Your task to perform on an android device: clear history in the chrome app Image 0: 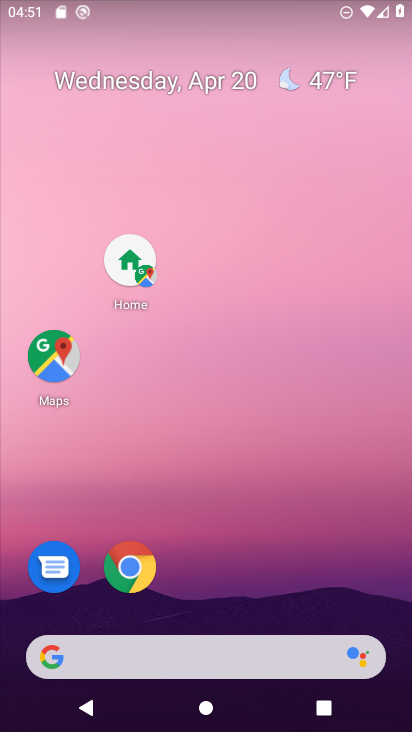
Step 0: click (129, 572)
Your task to perform on an android device: clear history in the chrome app Image 1: 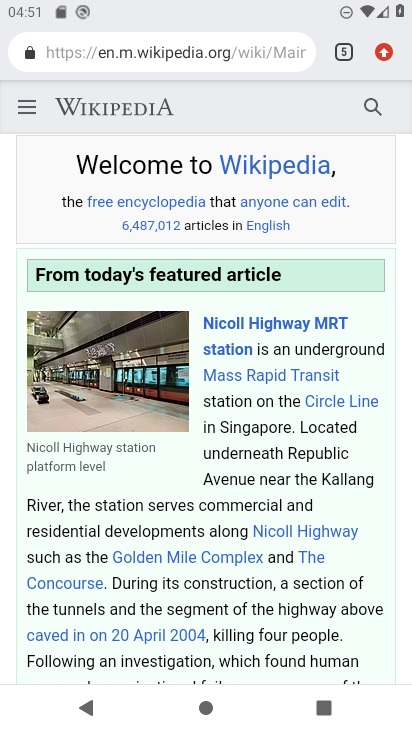
Step 1: click (384, 48)
Your task to perform on an android device: clear history in the chrome app Image 2: 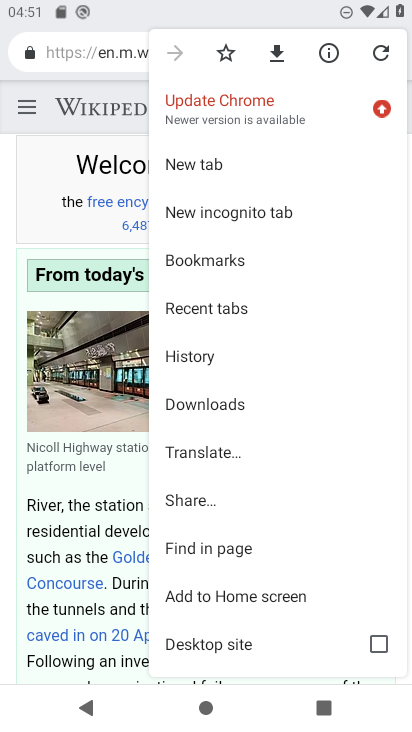
Step 2: drag from (186, 628) to (174, 67)
Your task to perform on an android device: clear history in the chrome app Image 3: 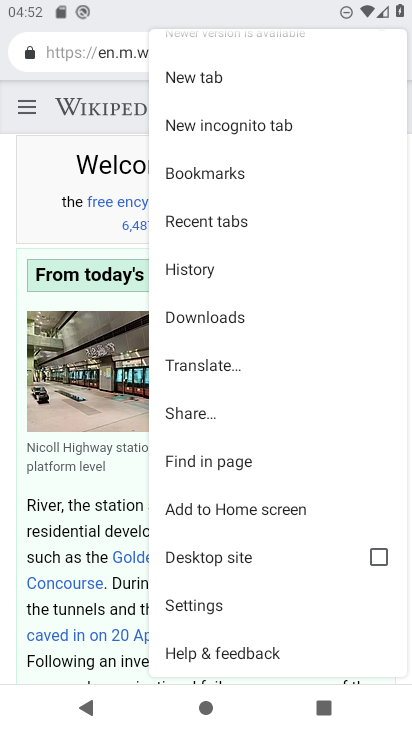
Step 3: click (250, 615)
Your task to perform on an android device: clear history in the chrome app Image 4: 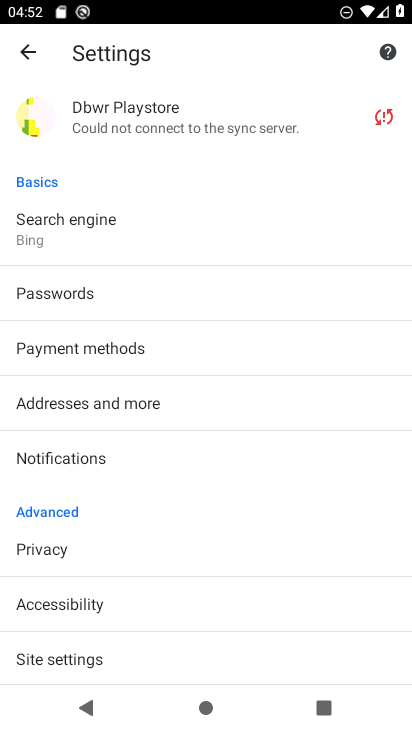
Step 4: drag from (143, 645) to (144, 201)
Your task to perform on an android device: clear history in the chrome app Image 5: 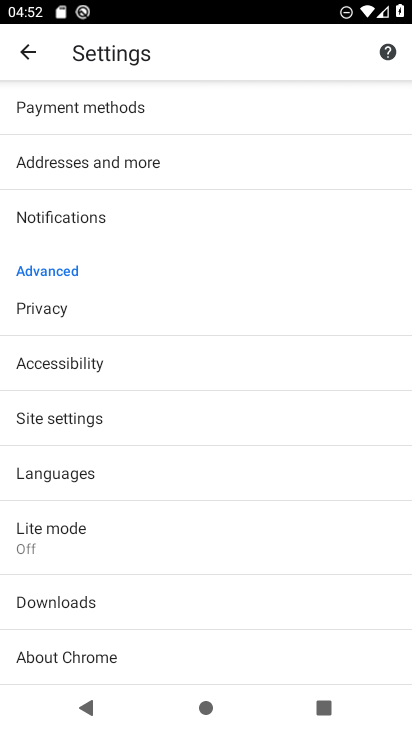
Step 5: drag from (190, 547) to (157, 187)
Your task to perform on an android device: clear history in the chrome app Image 6: 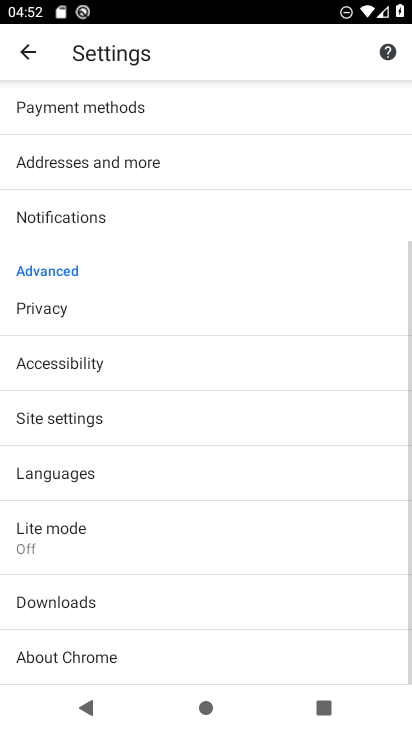
Step 6: drag from (161, 34) to (299, 522)
Your task to perform on an android device: clear history in the chrome app Image 7: 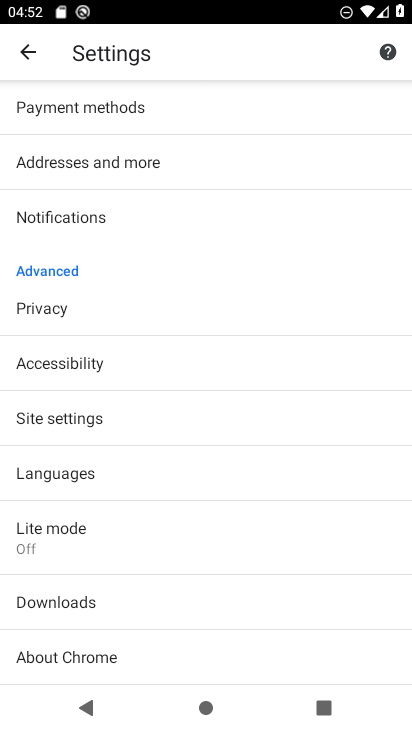
Step 7: drag from (179, 116) to (203, 469)
Your task to perform on an android device: clear history in the chrome app Image 8: 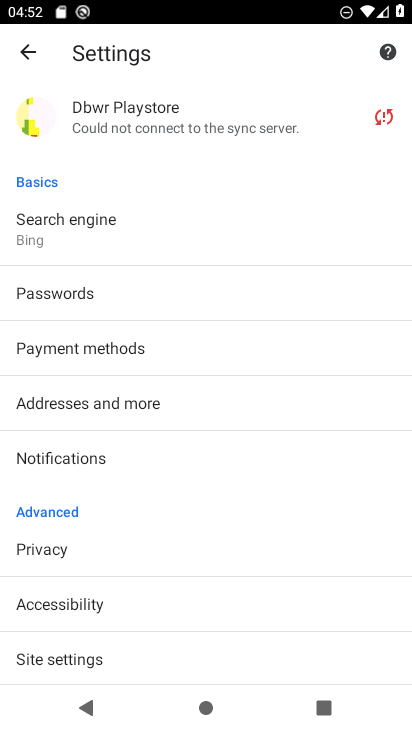
Step 8: click (20, 57)
Your task to perform on an android device: clear history in the chrome app Image 9: 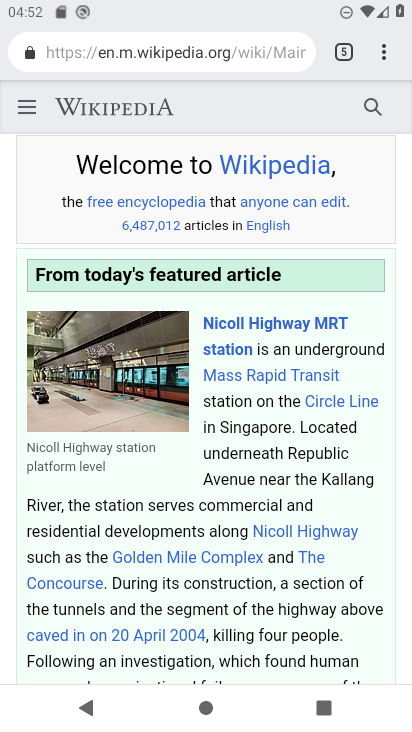
Step 9: click (389, 55)
Your task to perform on an android device: clear history in the chrome app Image 10: 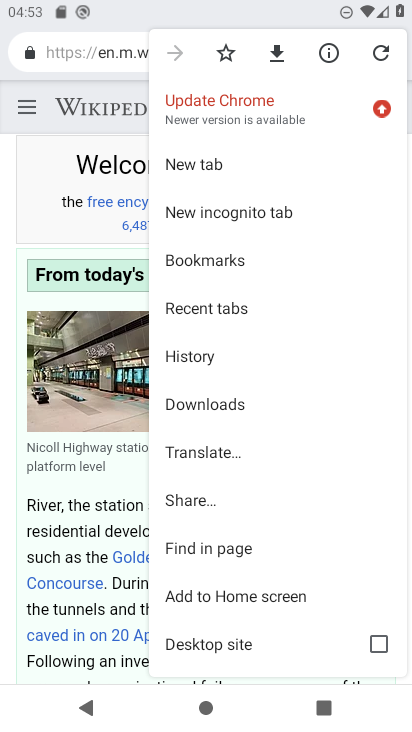
Step 10: click (199, 355)
Your task to perform on an android device: clear history in the chrome app Image 11: 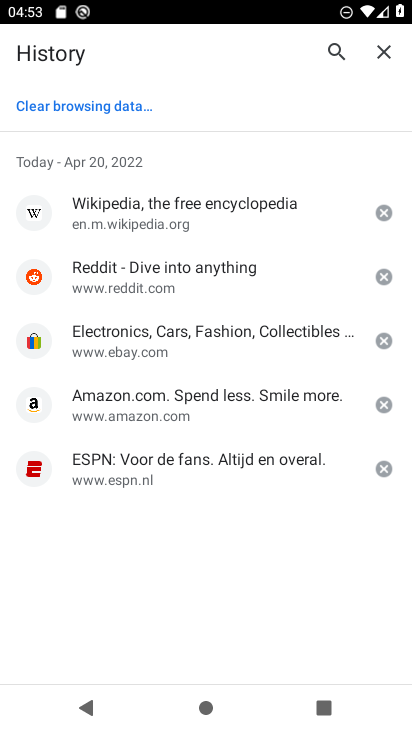
Step 11: click (121, 108)
Your task to perform on an android device: clear history in the chrome app Image 12: 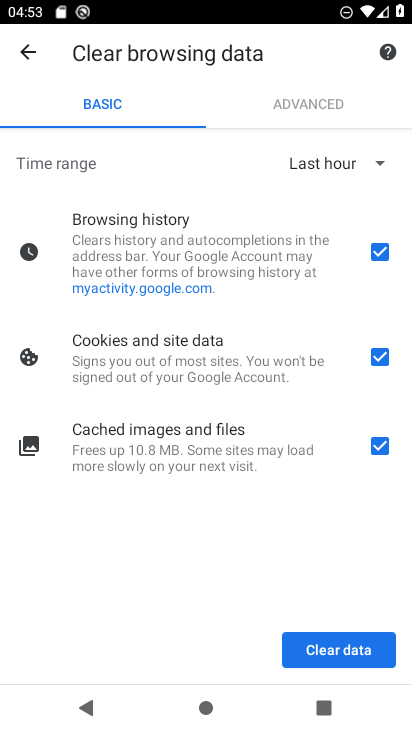
Step 12: click (335, 641)
Your task to perform on an android device: clear history in the chrome app Image 13: 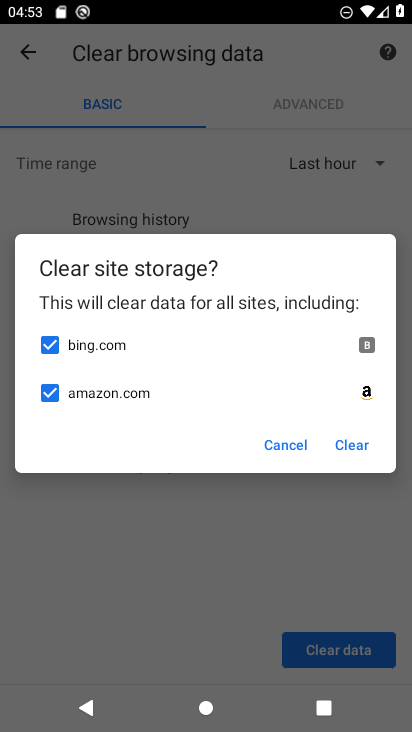
Step 13: click (345, 441)
Your task to perform on an android device: clear history in the chrome app Image 14: 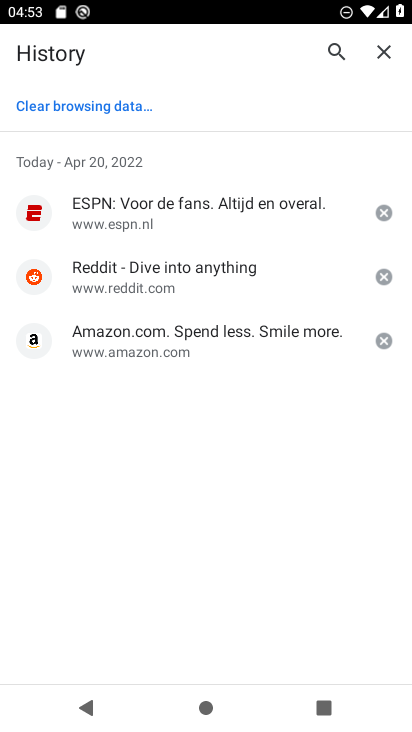
Step 14: click (53, 102)
Your task to perform on an android device: clear history in the chrome app Image 15: 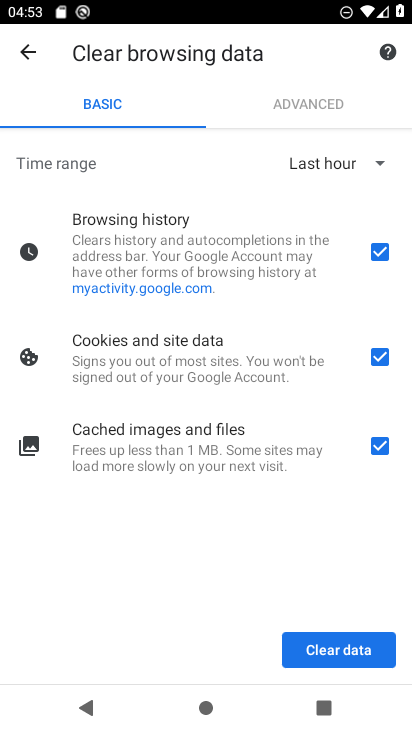
Step 15: click (336, 642)
Your task to perform on an android device: clear history in the chrome app Image 16: 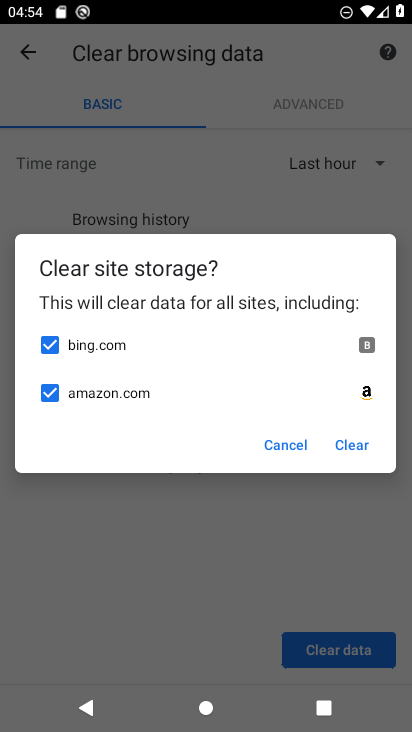
Step 16: click (360, 455)
Your task to perform on an android device: clear history in the chrome app Image 17: 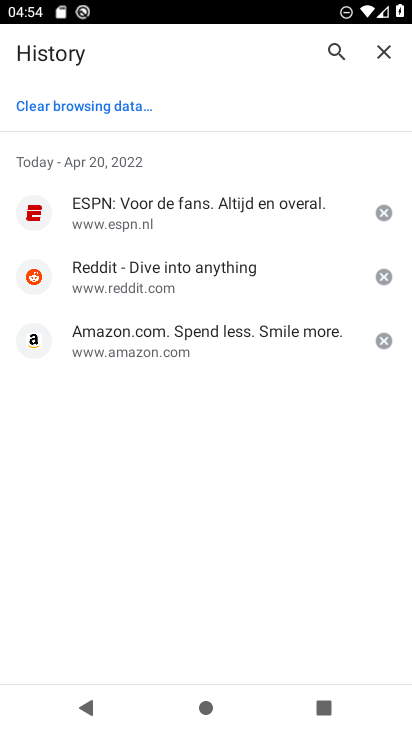
Step 17: click (149, 101)
Your task to perform on an android device: clear history in the chrome app Image 18: 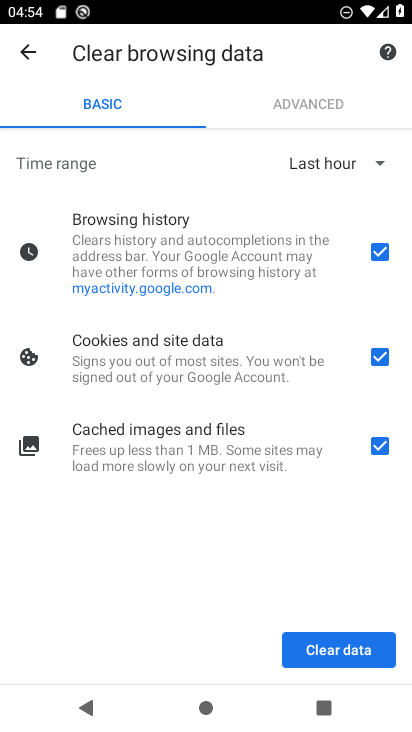
Step 18: click (378, 659)
Your task to perform on an android device: clear history in the chrome app Image 19: 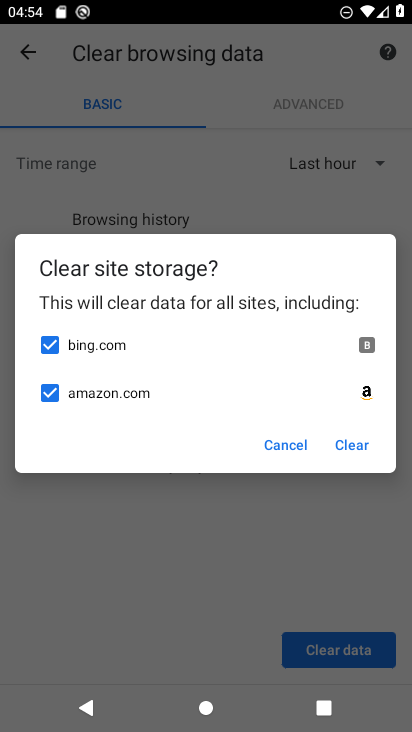
Step 19: click (360, 438)
Your task to perform on an android device: clear history in the chrome app Image 20: 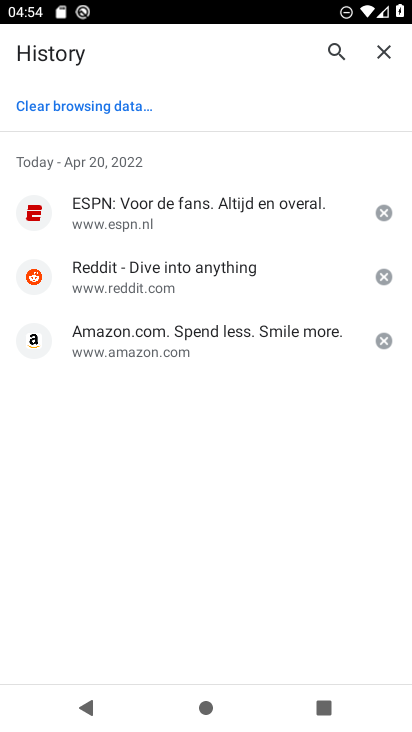
Step 20: task complete